Your task to perform on an android device: toggle data saver in the chrome app Image 0: 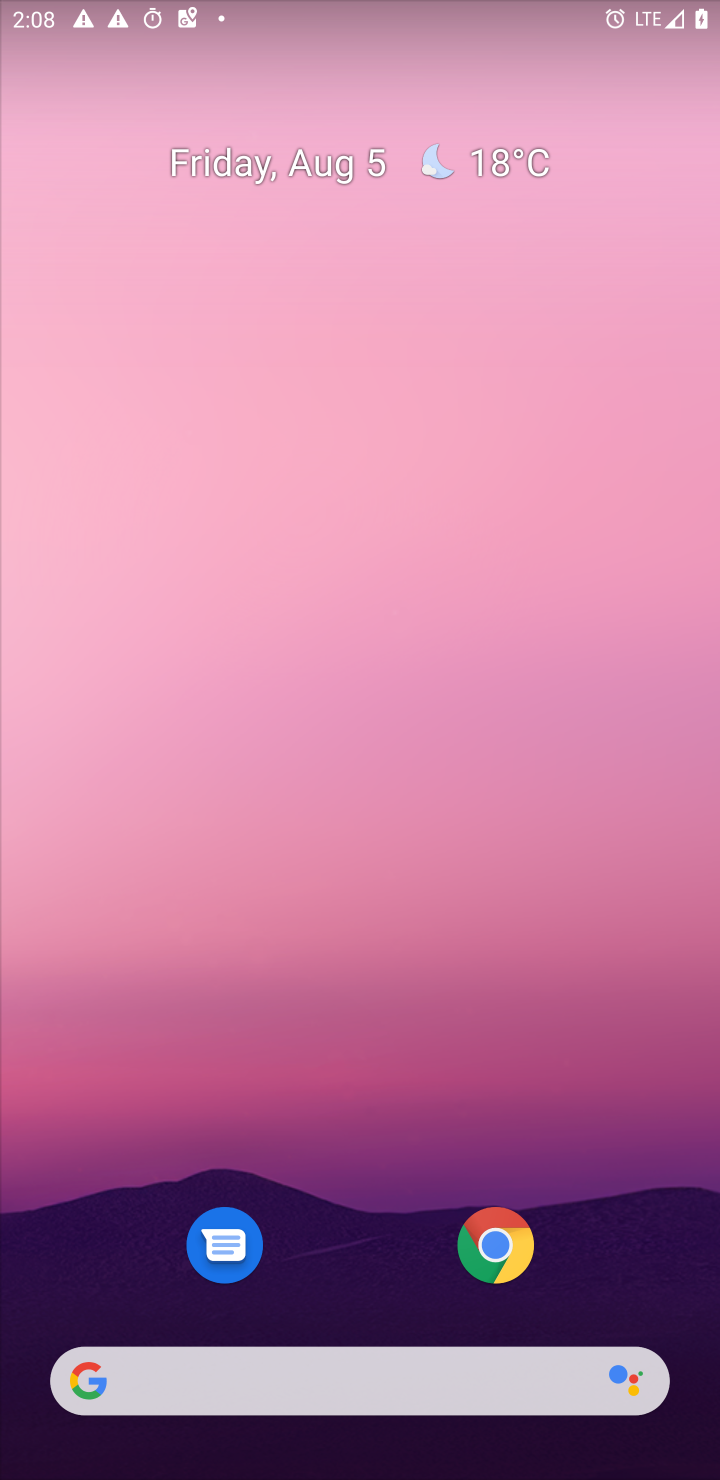
Step 0: press home button
Your task to perform on an android device: toggle data saver in the chrome app Image 1: 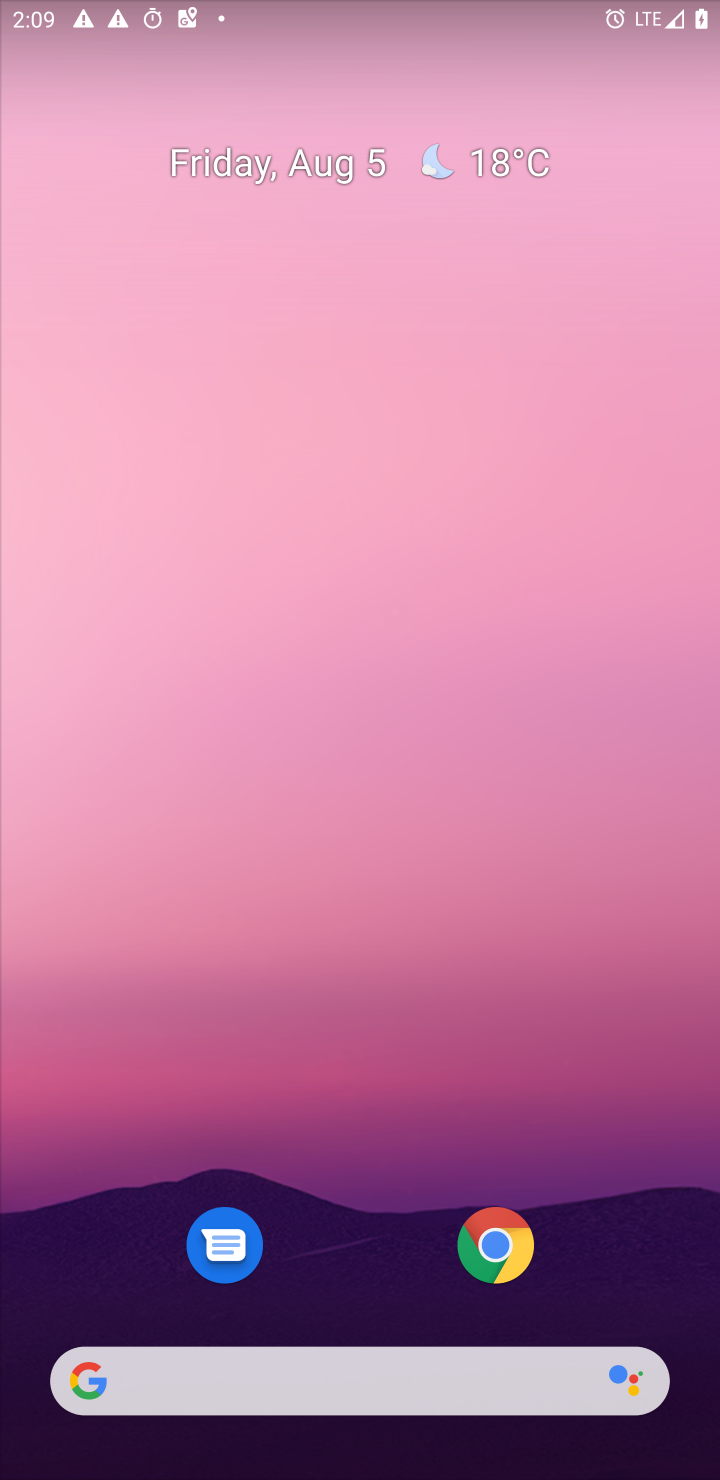
Step 1: drag from (405, 1242) to (688, 89)
Your task to perform on an android device: toggle data saver in the chrome app Image 2: 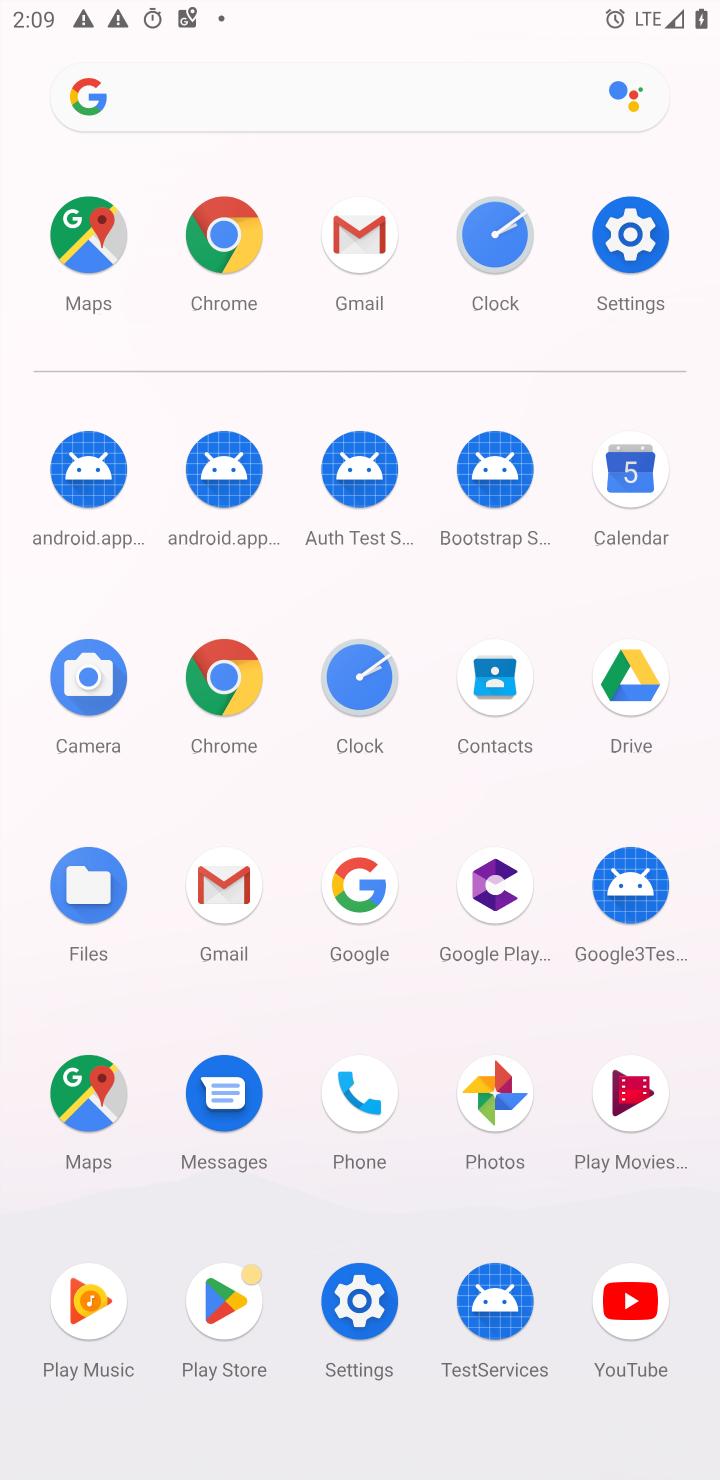
Step 2: click (218, 250)
Your task to perform on an android device: toggle data saver in the chrome app Image 3: 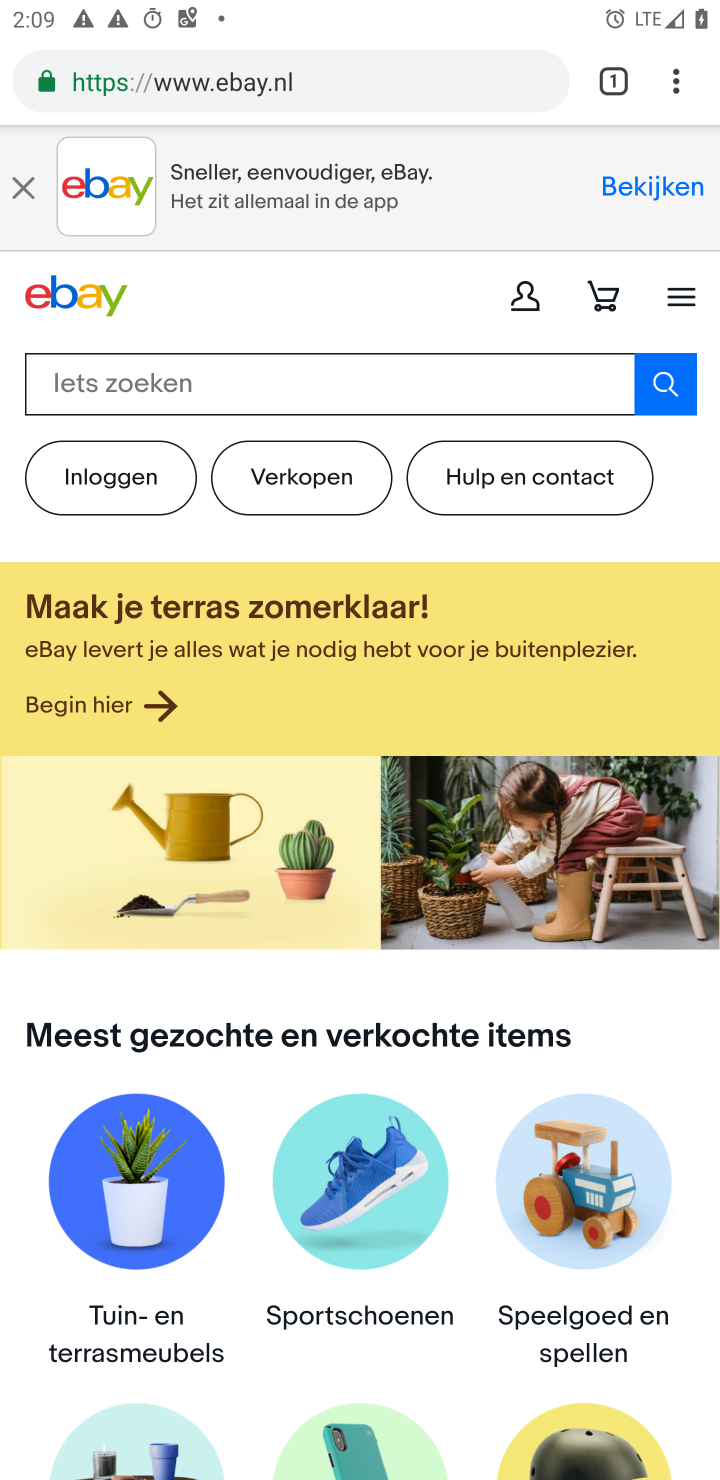
Step 3: drag from (672, 73) to (385, 1084)
Your task to perform on an android device: toggle data saver in the chrome app Image 4: 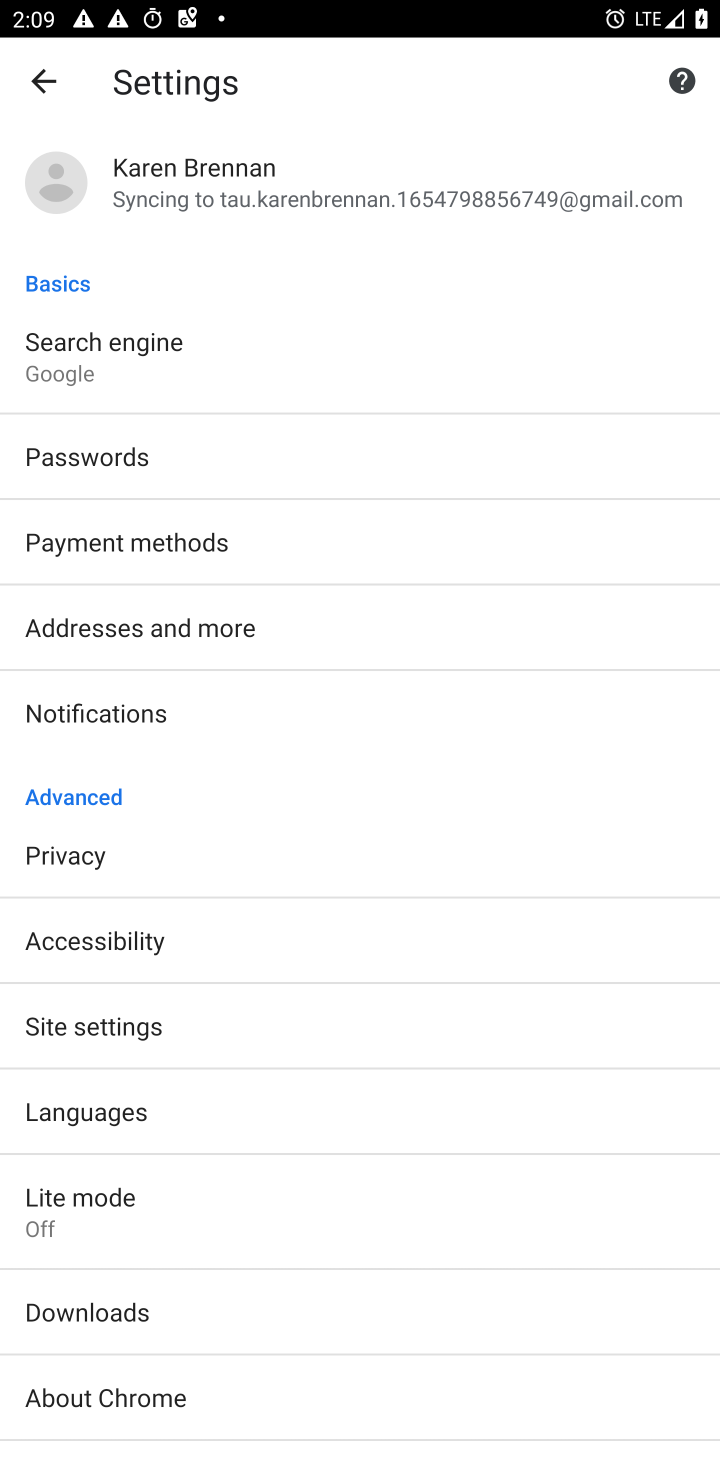
Step 4: click (77, 1195)
Your task to perform on an android device: toggle data saver in the chrome app Image 5: 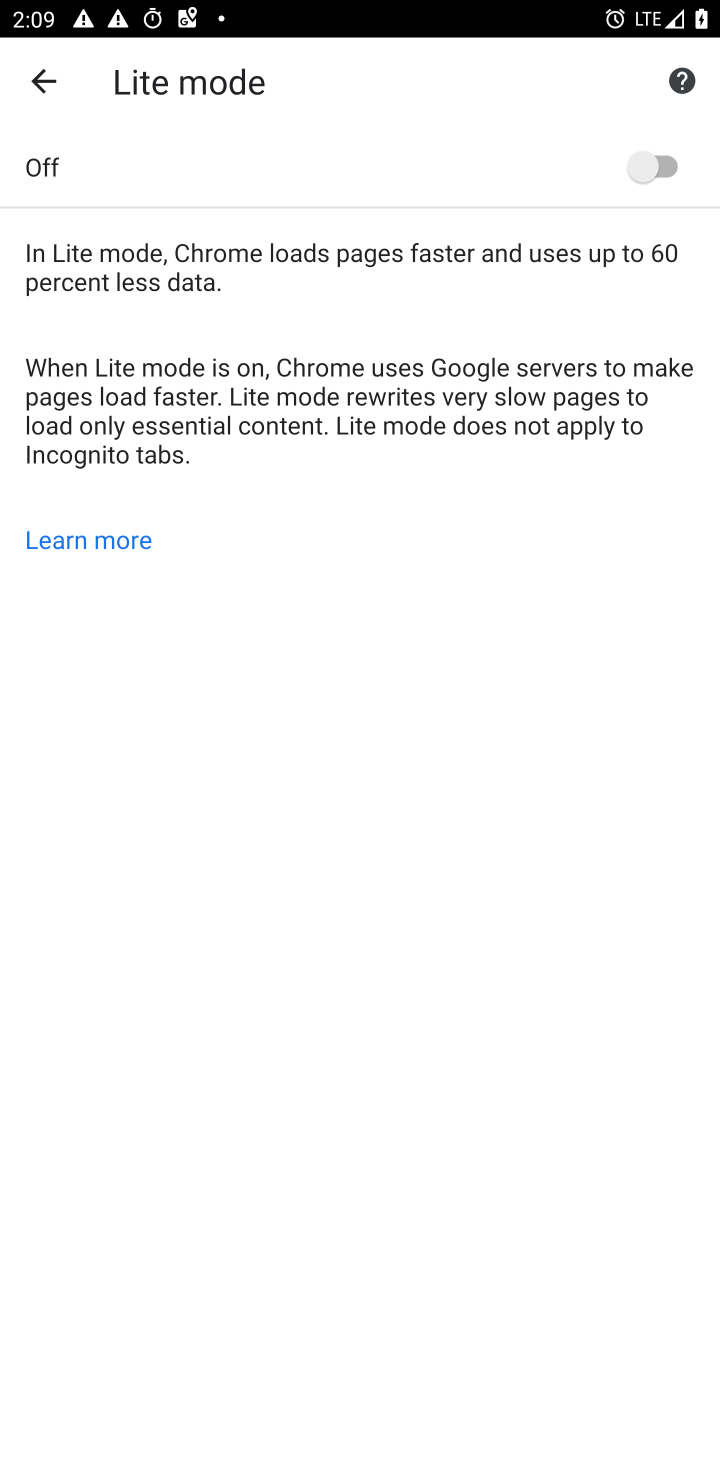
Step 5: click (644, 167)
Your task to perform on an android device: toggle data saver in the chrome app Image 6: 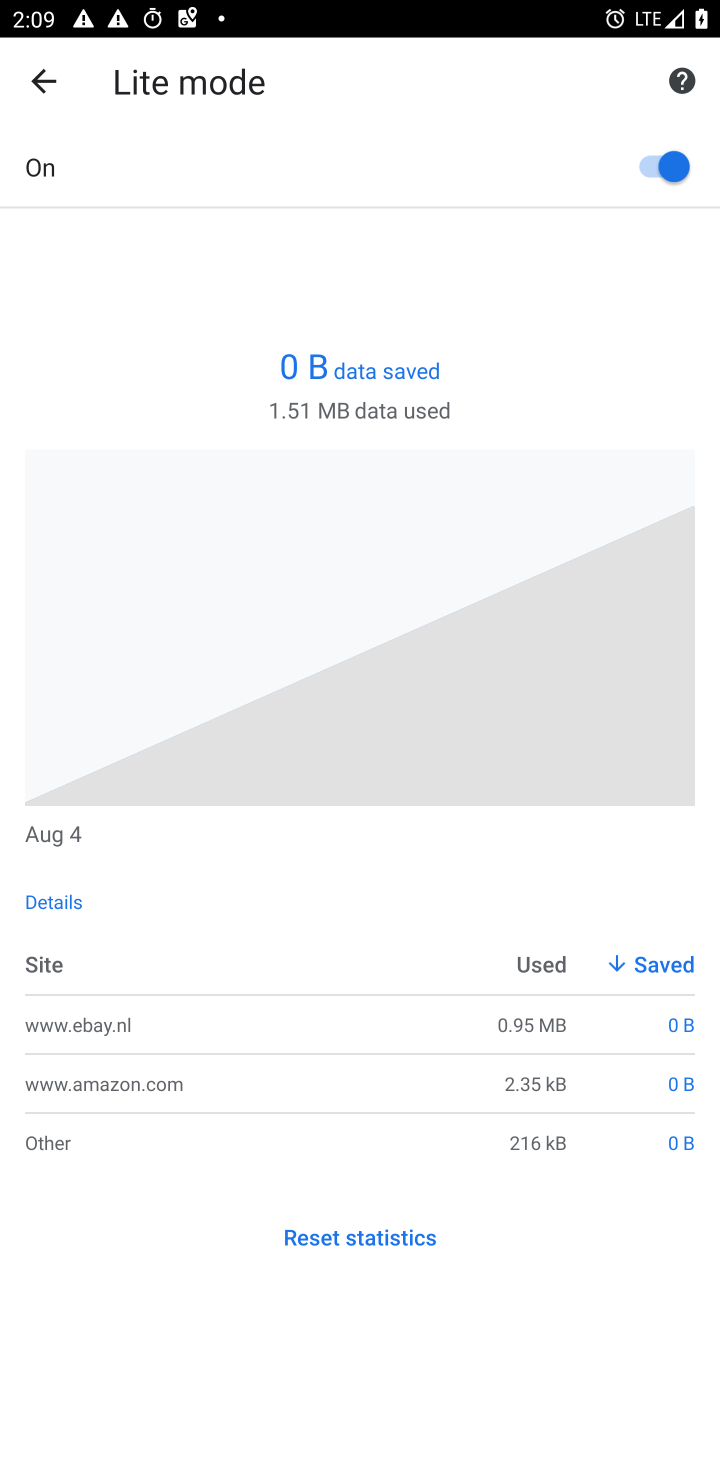
Step 6: task complete